Your task to perform on an android device: open chrome and create a bookmark for the current page Image 0: 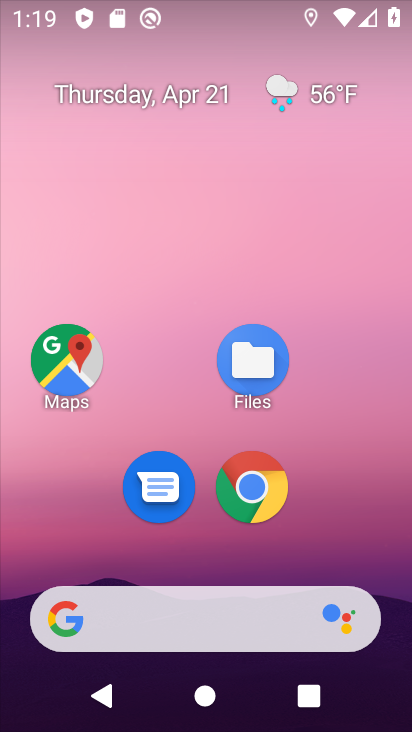
Step 0: drag from (363, 407) to (354, 164)
Your task to perform on an android device: open chrome and create a bookmark for the current page Image 1: 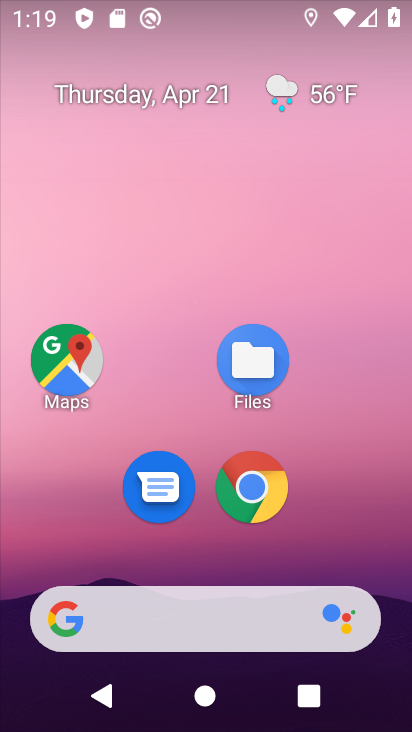
Step 1: click (278, 503)
Your task to perform on an android device: open chrome and create a bookmark for the current page Image 2: 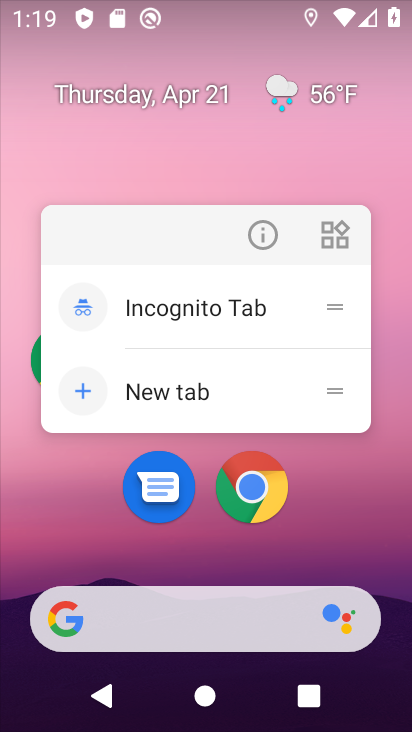
Step 2: drag from (334, 519) to (353, 138)
Your task to perform on an android device: open chrome and create a bookmark for the current page Image 3: 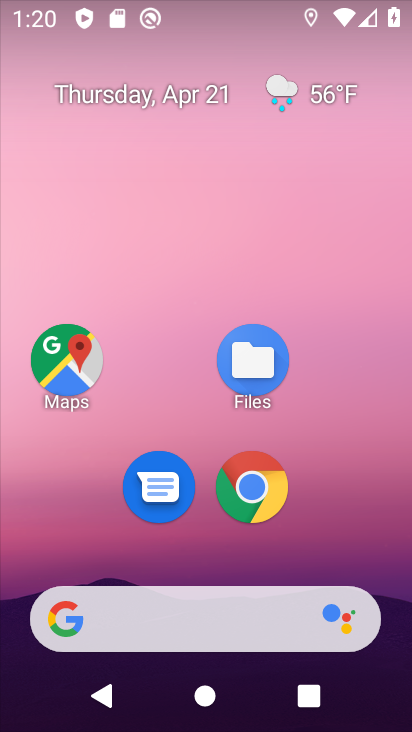
Step 3: drag from (385, 503) to (369, 162)
Your task to perform on an android device: open chrome and create a bookmark for the current page Image 4: 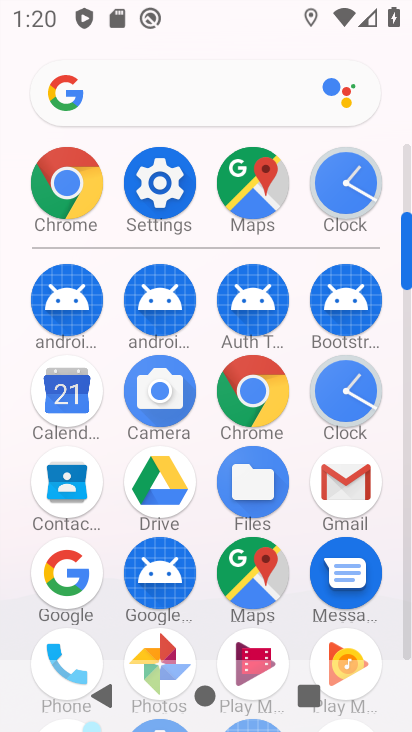
Step 4: click (269, 383)
Your task to perform on an android device: open chrome and create a bookmark for the current page Image 5: 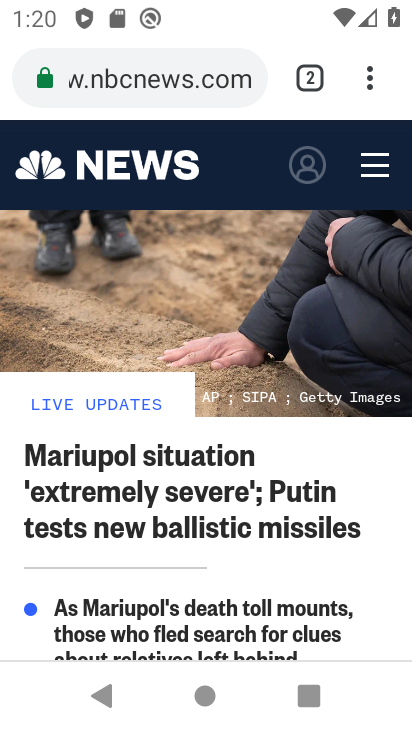
Step 5: click (374, 84)
Your task to perform on an android device: open chrome and create a bookmark for the current page Image 6: 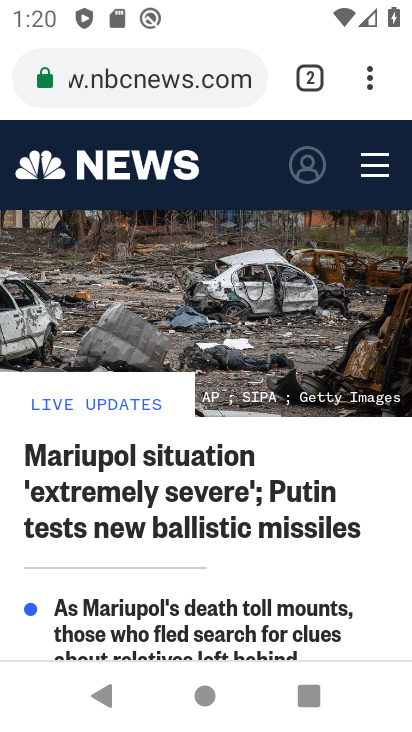
Step 6: task complete